Your task to perform on an android device: Go to location settings Image 0: 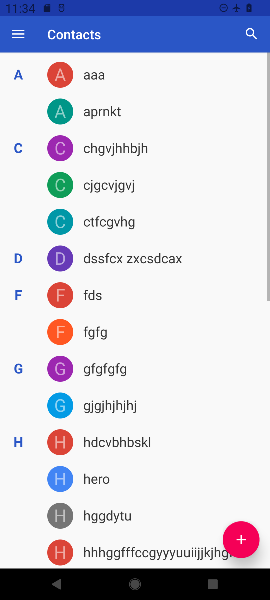
Step 0: press back button
Your task to perform on an android device: Go to location settings Image 1: 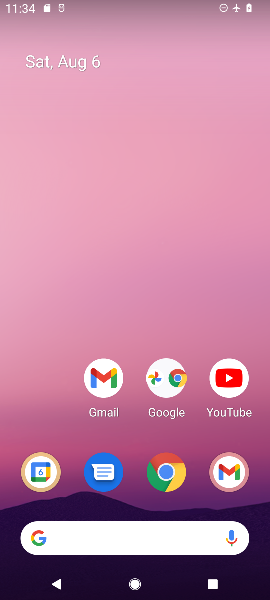
Step 1: press home button
Your task to perform on an android device: Go to location settings Image 2: 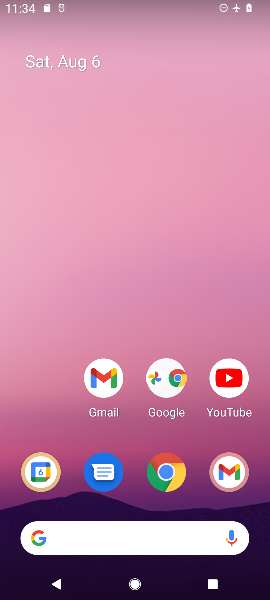
Step 2: drag from (172, 511) to (82, 136)
Your task to perform on an android device: Go to location settings Image 3: 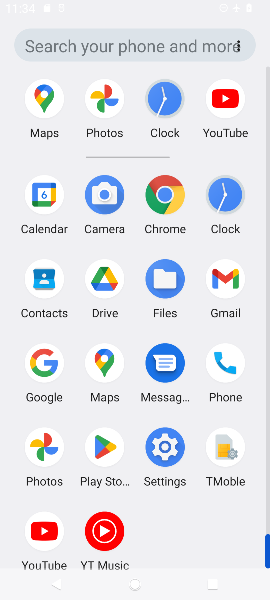
Step 3: drag from (139, 397) to (105, 133)
Your task to perform on an android device: Go to location settings Image 4: 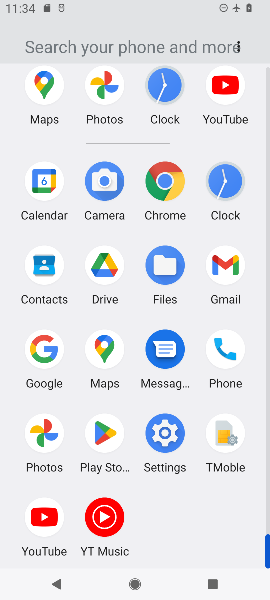
Step 4: click (161, 440)
Your task to perform on an android device: Go to location settings Image 5: 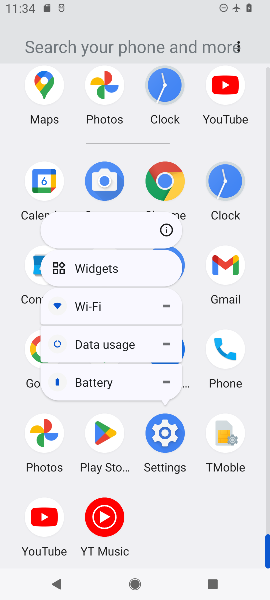
Step 5: click (160, 445)
Your task to perform on an android device: Go to location settings Image 6: 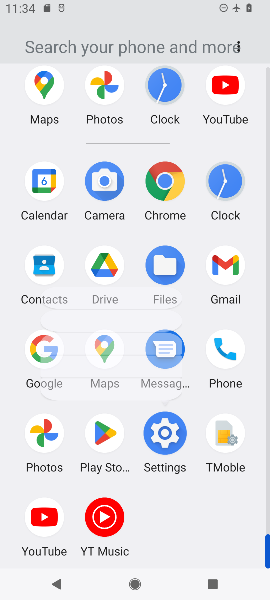
Step 6: click (166, 439)
Your task to perform on an android device: Go to location settings Image 7: 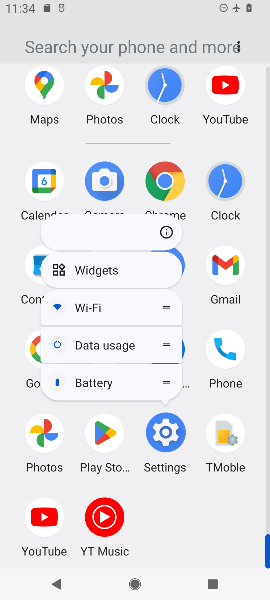
Step 7: click (166, 439)
Your task to perform on an android device: Go to location settings Image 8: 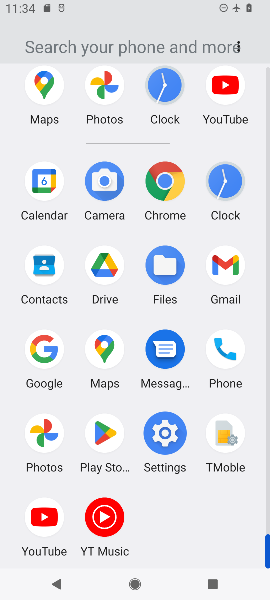
Step 8: click (167, 439)
Your task to perform on an android device: Go to location settings Image 9: 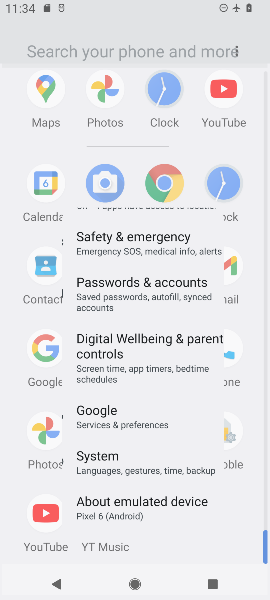
Step 9: click (169, 440)
Your task to perform on an android device: Go to location settings Image 10: 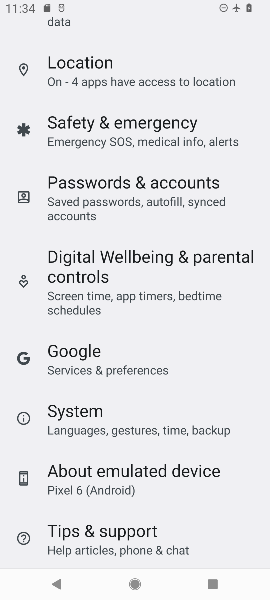
Step 10: click (57, 71)
Your task to perform on an android device: Go to location settings Image 11: 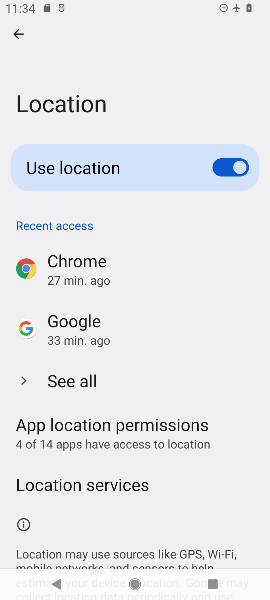
Step 11: task complete